Your task to perform on an android device: uninstall "Grab" Image 0: 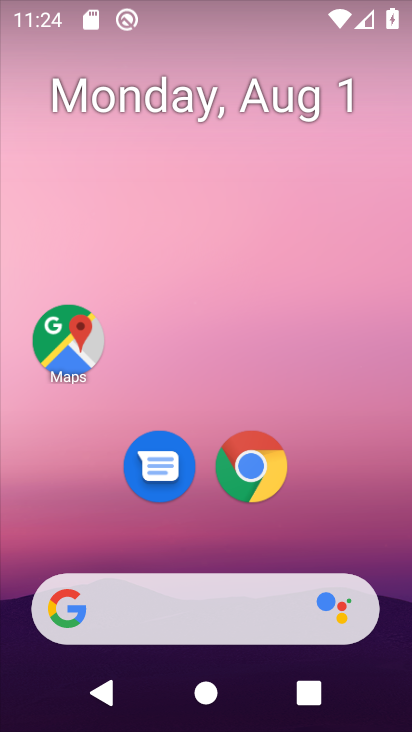
Step 0: drag from (230, 724) to (230, 118)
Your task to perform on an android device: uninstall "Grab" Image 1: 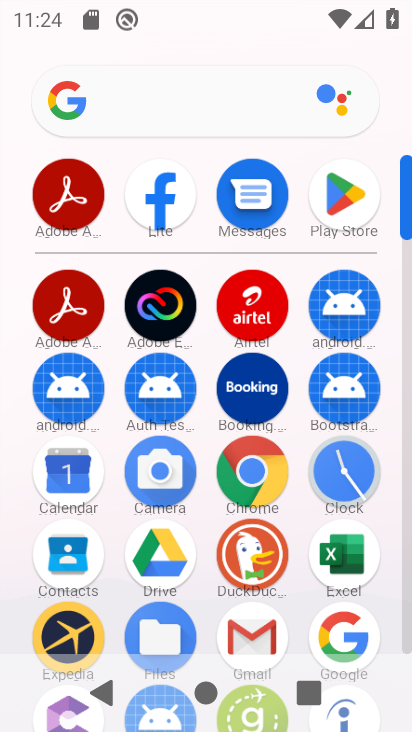
Step 1: click (335, 197)
Your task to perform on an android device: uninstall "Grab" Image 2: 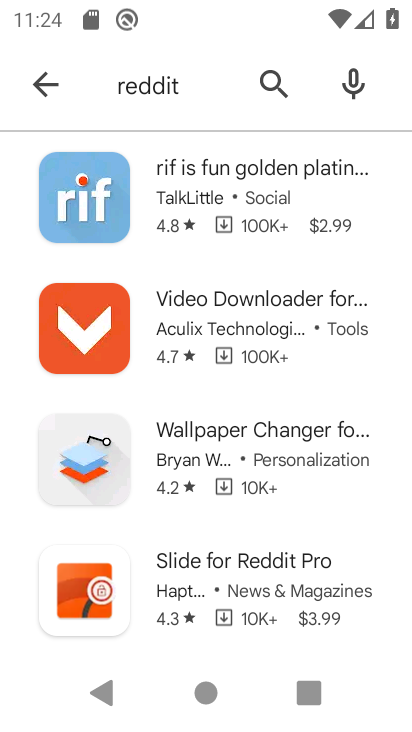
Step 2: click (280, 74)
Your task to perform on an android device: uninstall "Grab" Image 3: 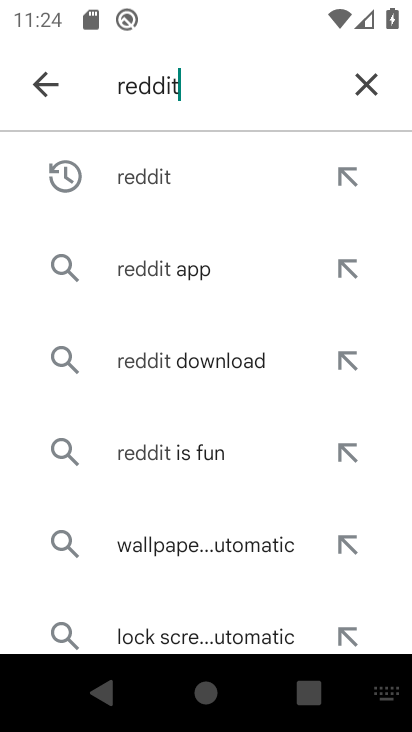
Step 3: click (361, 80)
Your task to perform on an android device: uninstall "Grab" Image 4: 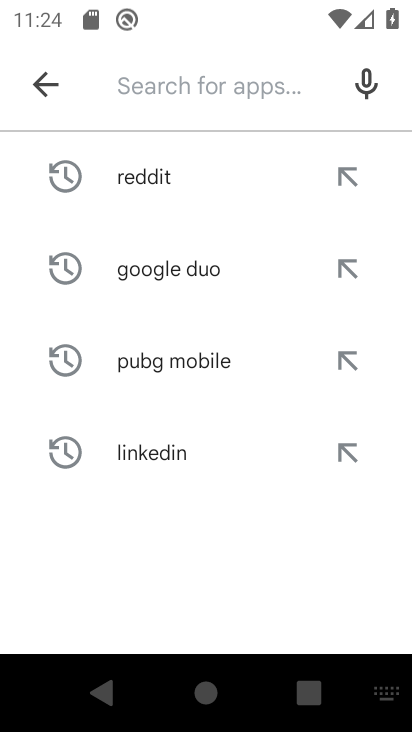
Step 4: type "Grab"
Your task to perform on an android device: uninstall "Grab" Image 5: 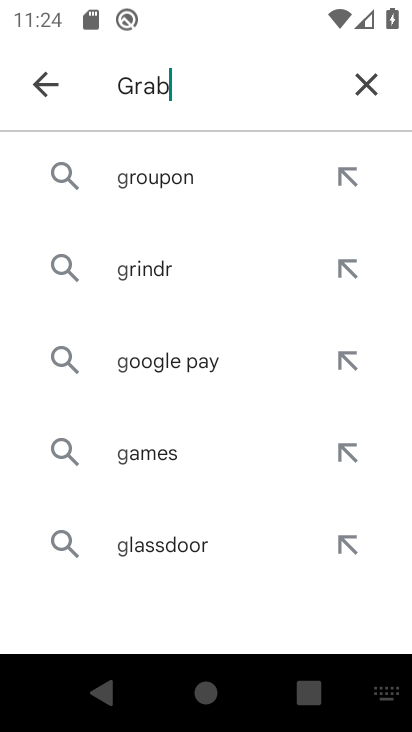
Step 5: type ""
Your task to perform on an android device: uninstall "Grab" Image 6: 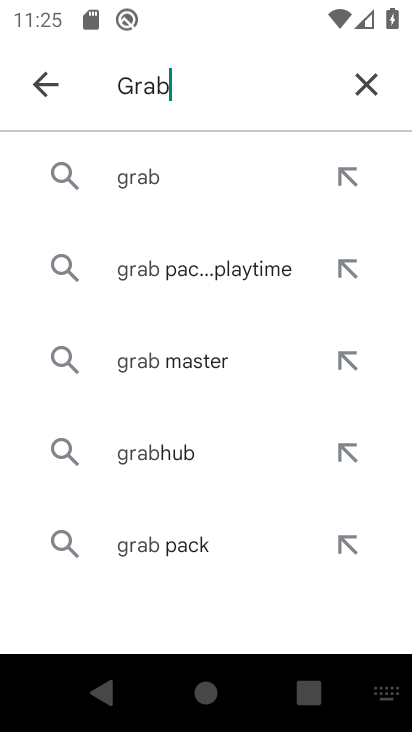
Step 6: click (141, 175)
Your task to perform on an android device: uninstall "Grab" Image 7: 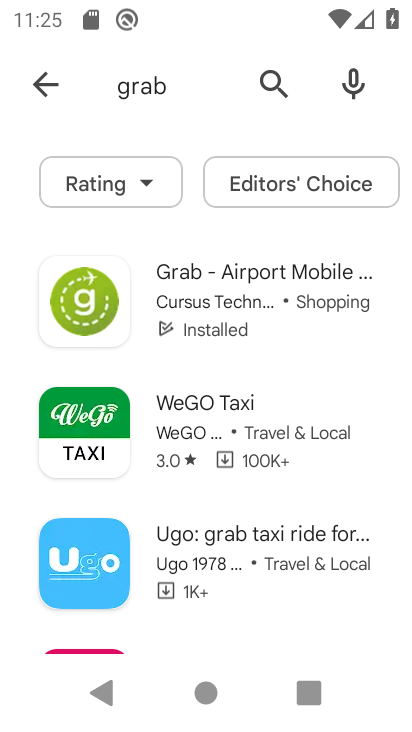
Step 7: click (237, 276)
Your task to perform on an android device: uninstall "Grab" Image 8: 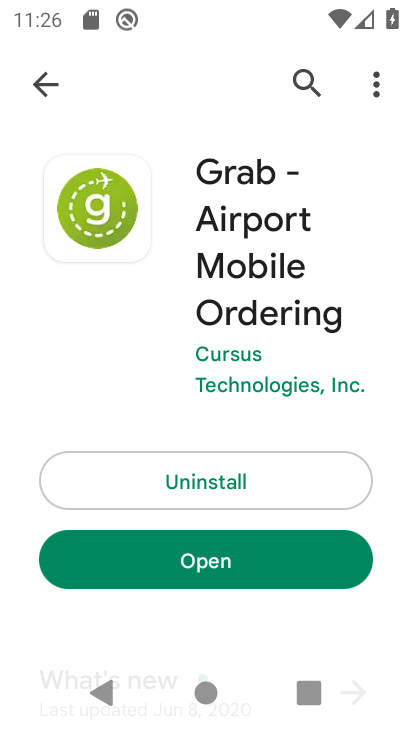
Step 8: click (219, 481)
Your task to perform on an android device: uninstall "Grab" Image 9: 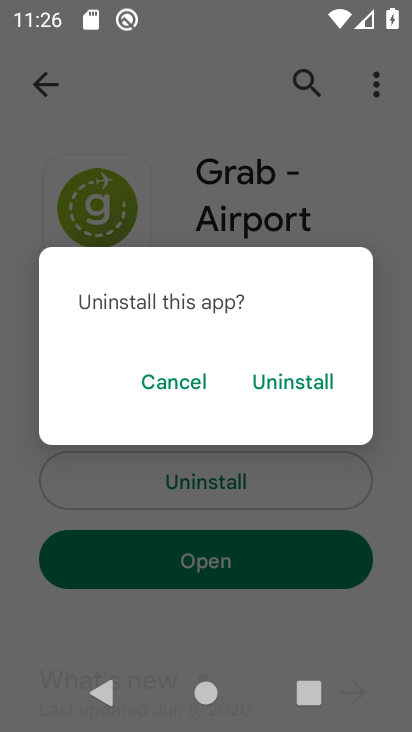
Step 9: click (304, 383)
Your task to perform on an android device: uninstall "Grab" Image 10: 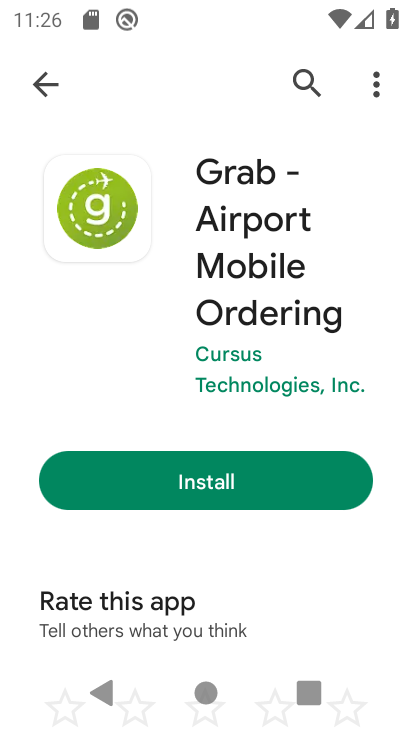
Step 10: task complete